Your task to perform on an android device: turn on notifications settings in the gmail app Image 0: 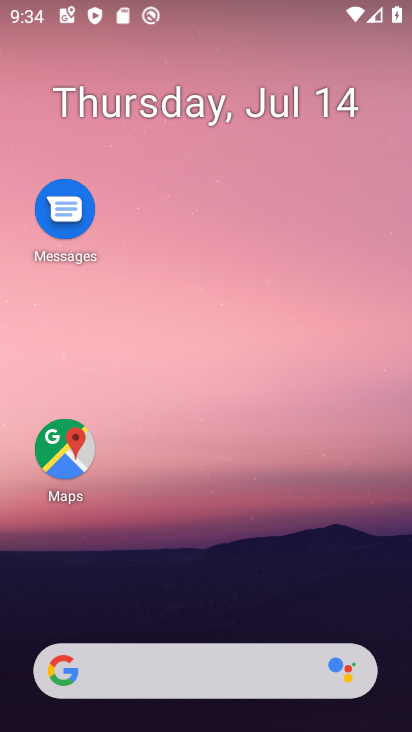
Step 0: drag from (210, 621) to (221, 2)
Your task to perform on an android device: turn on notifications settings in the gmail app Image 1: 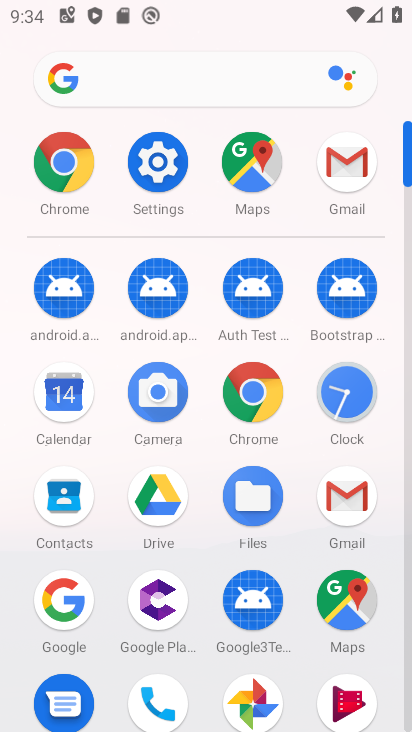
Step 1: click (332, 169)
Your task to perform on an android device: turn on notifications settings in the gmail app Image 2: 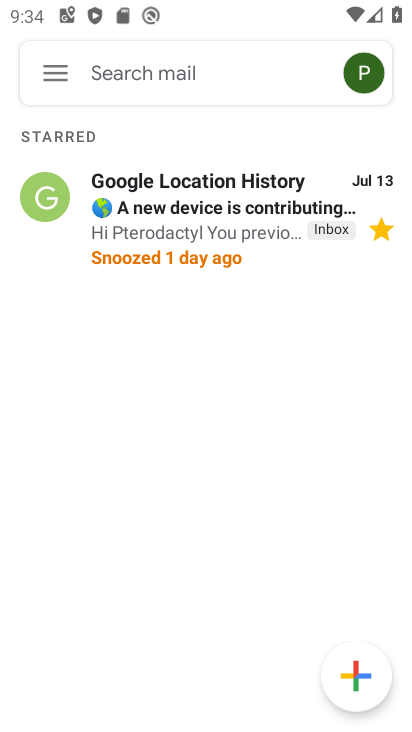
Step 2: click (42, 66)
Your task to perform on an android device: turn on notifications settings in the gmail app Image 3: 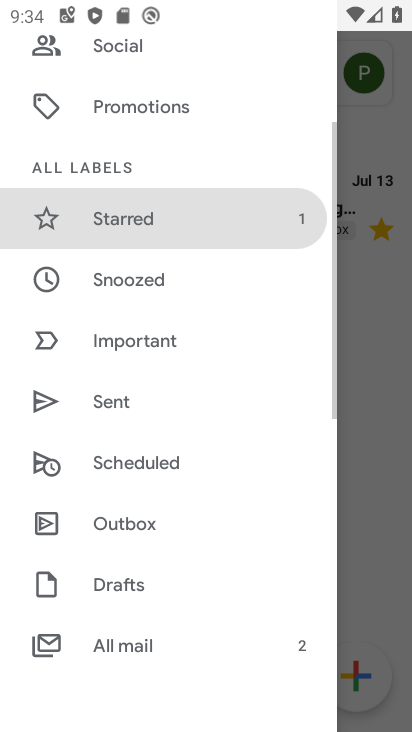
Step 3: drag from (113, 577) to (10, 150)
Your task to perform on an android device: turn on notifications settings in the gmail app Image 4: 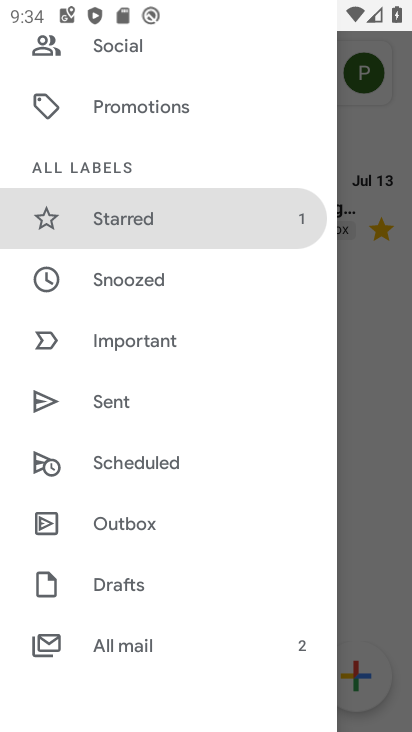
Step 4: drag from (81, 586) to (75, 5)
Your task to perform on an android device: turn on notifications settings in the gmail app Image 5: 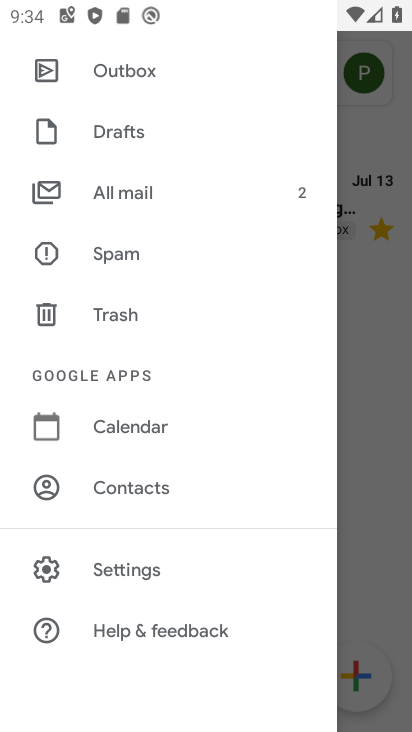
Step 5: click (133, 575)
Your task to perform on an android device: turn on notifications settings in the gmail app Image 6: 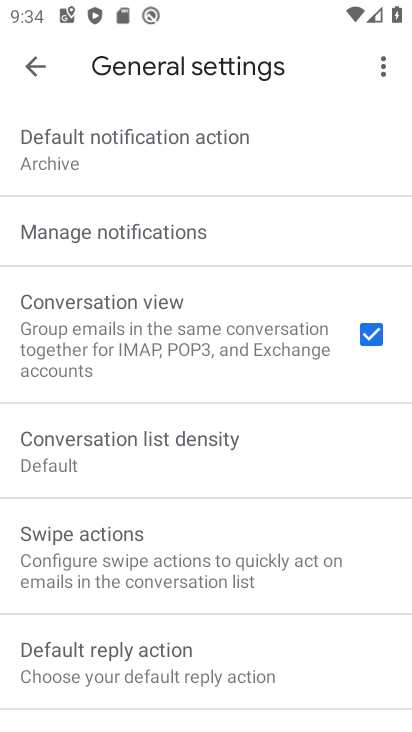
Step 6: click (85, 242)
Your task to perform on an android device: turn on notifications settings in the gmail app Image 7: 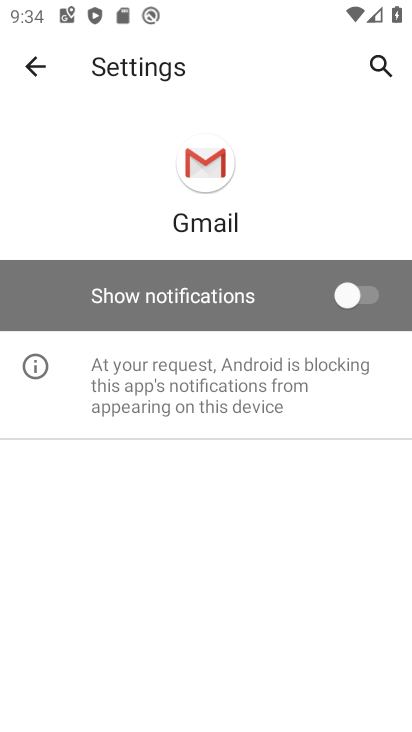
Step 7: click (248, 324)
Your task to perform on an android device: turn on notifications settings in the gmail app Image 8: 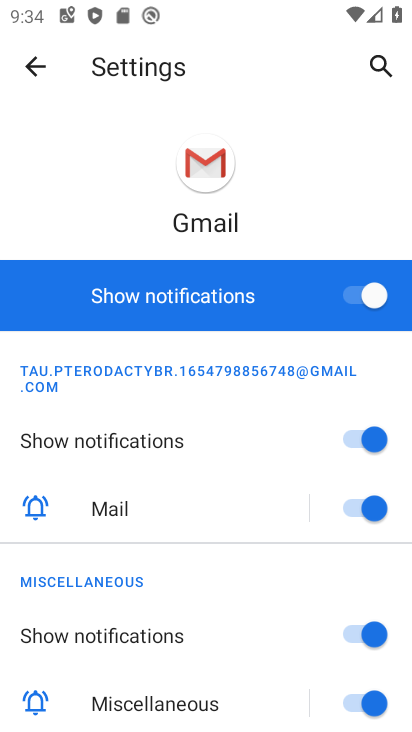
Step 8: task complete